Your task to perform on an android device: find photos in the google photos app Image 0: 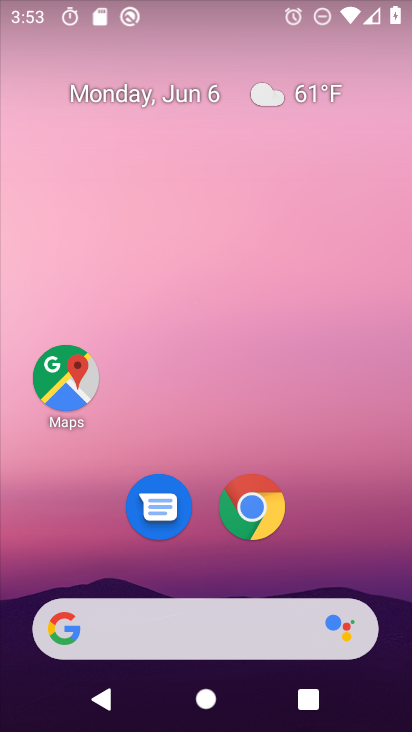
Step 0: drag from (200, 576) to (211, 220)
Your task to perform on an android device: find photos in the google photos app Image 1: 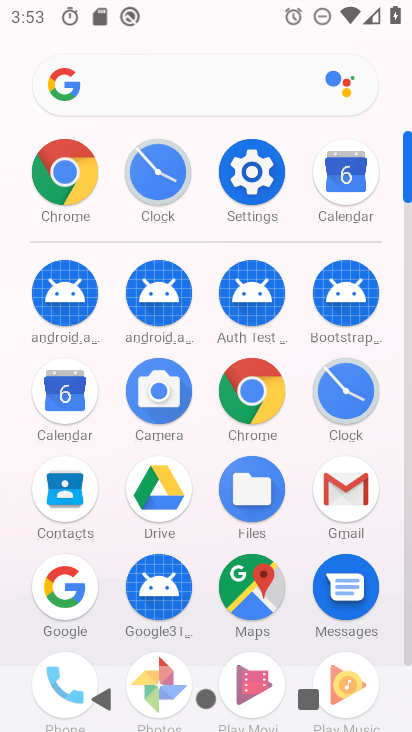
Step 1: drag from (205, 525) to (229, 282)
Your task to perform on an android device: find photos in the google photos app Image 2: 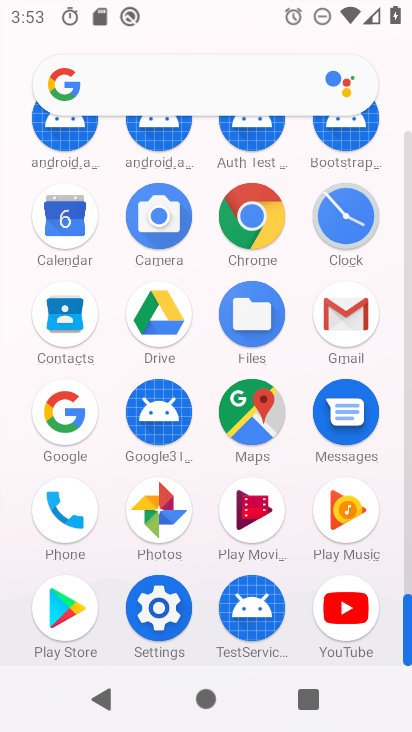
Step 2: click (157, 534)
Your task to perform on an android device: find photos in the google photos app Image 3: 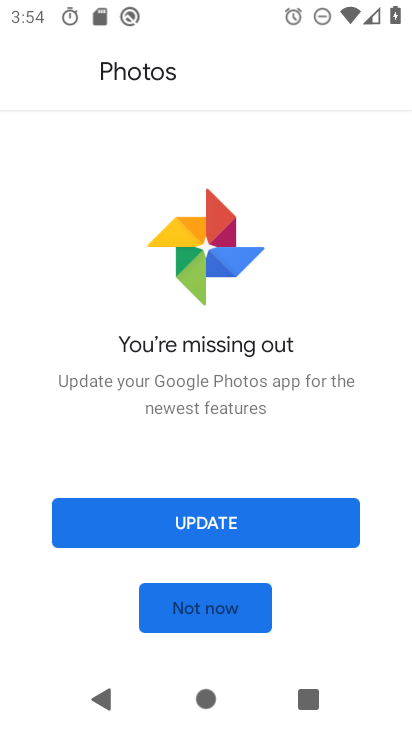
Step 3: click (221, 598)
Your task to perform on an android device: find photos in the google photos app Image 4: 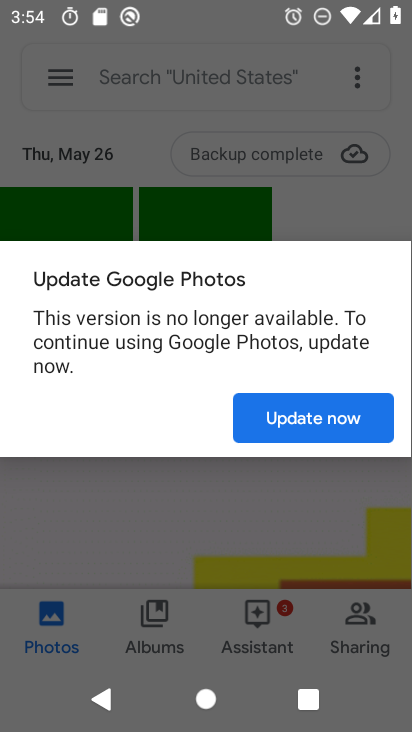
Step 4: click (338, 428)
Your task to perform on an android device: find photos in the google photos app Image 5: 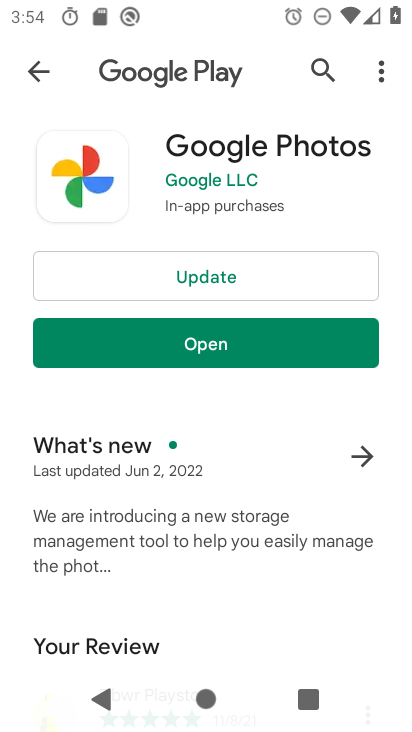
Step 5: click (216, 337)
Your task to perform on an android device: find photos in the google photos app Image 6: 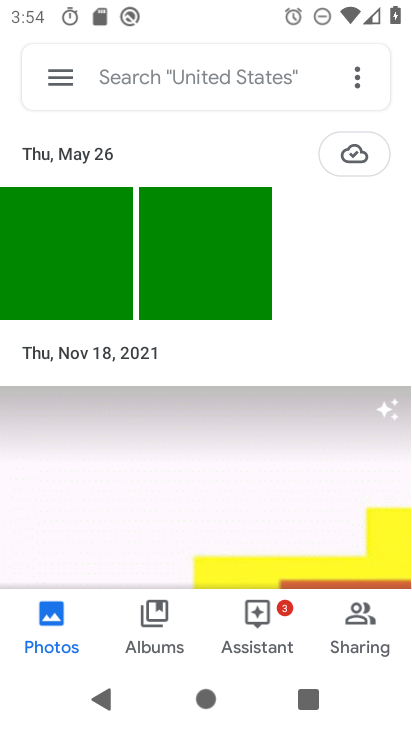
Step 6: click (166, 67)
Your task to perform on an android device: find photos in the google photos app Image 7: 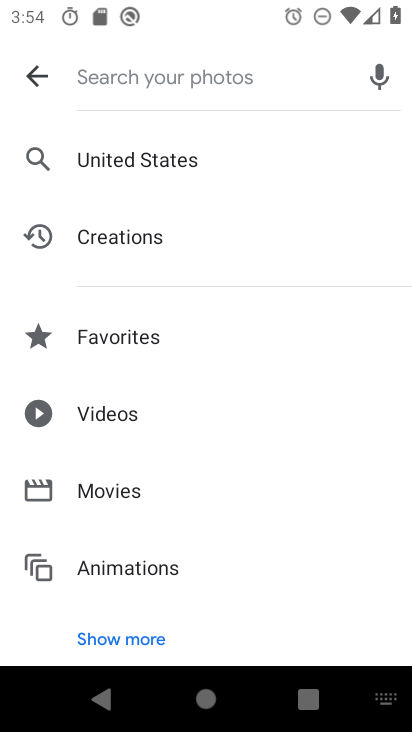
Step 7: type "aa"
Your task to perform on an android device: find photos in the google photos app Image 8: 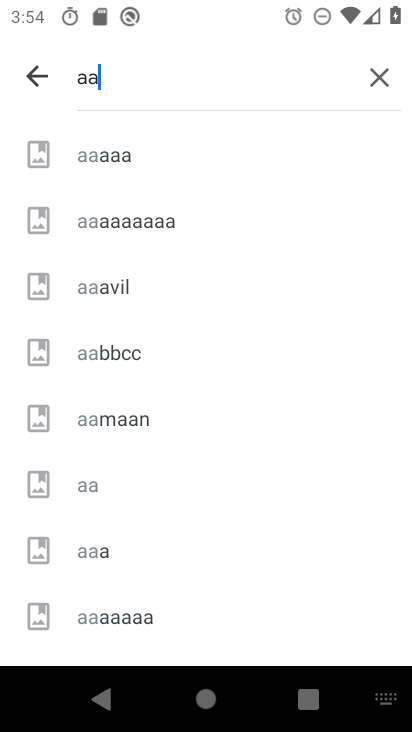
Step 8: click (166, 161)
Your task to perform on an android device: find photos in the google photos app Image 9: 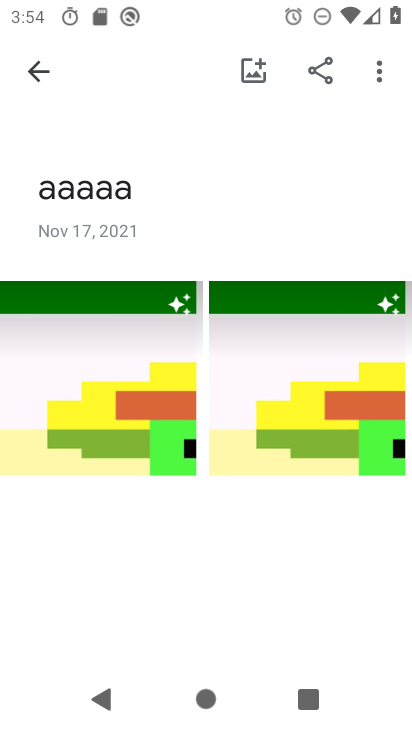
Step 9: task complete